Your task to perform on an android device: Open Youtube and go to "Your channel" Image 0: 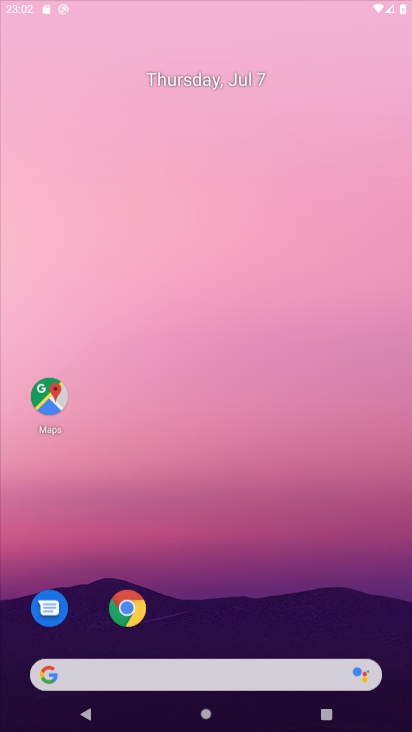
Step 0: click (206, 388)
Your task to perform on an android device: Open Youtube and go to "Your channel" Image 1: 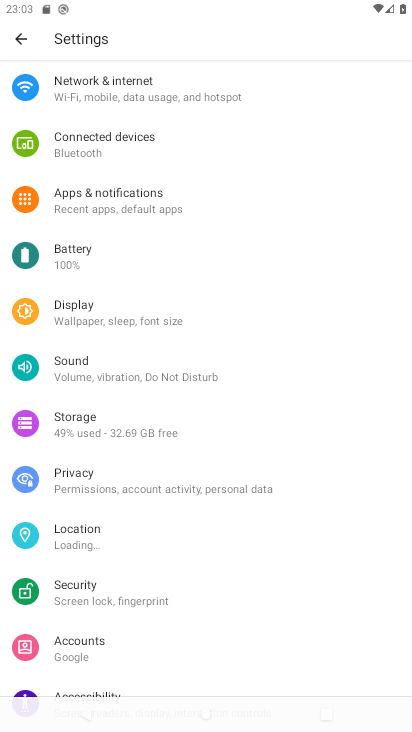
Step 1: press home button
Your task to perform on an android device: Open Youtube and go to "Your channel" Image 2: 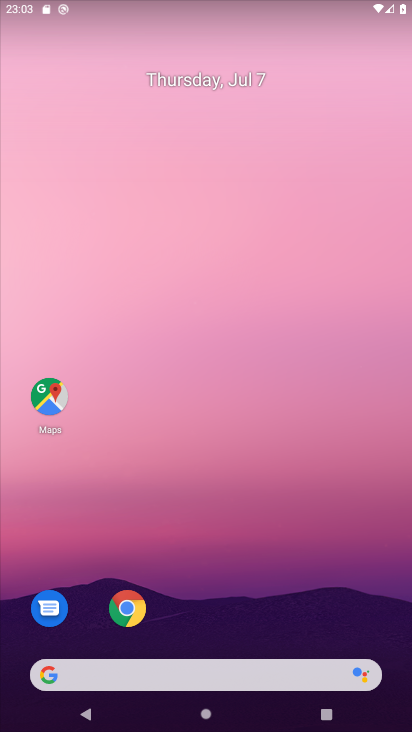
Step 2: drag from (233, 573) to (217, 436)
Your task to perform on an android device: Open Youtube and go to "Your channel" Image 3: 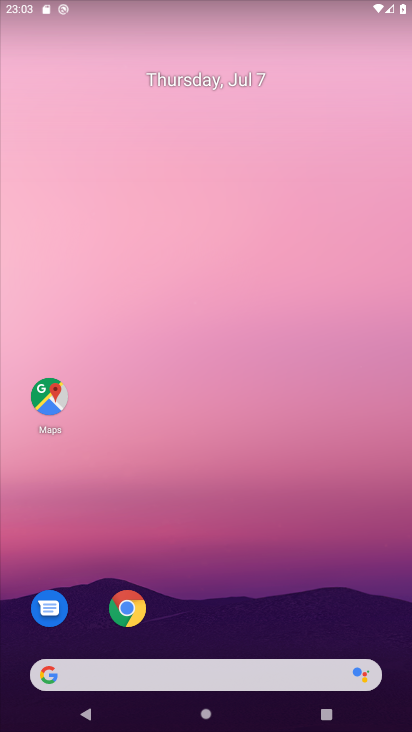
Step 3: drag from (251, 716) to (313, 90)
Your task to perform on an android device: Open Youtube and go to "Your channel" Image 4: 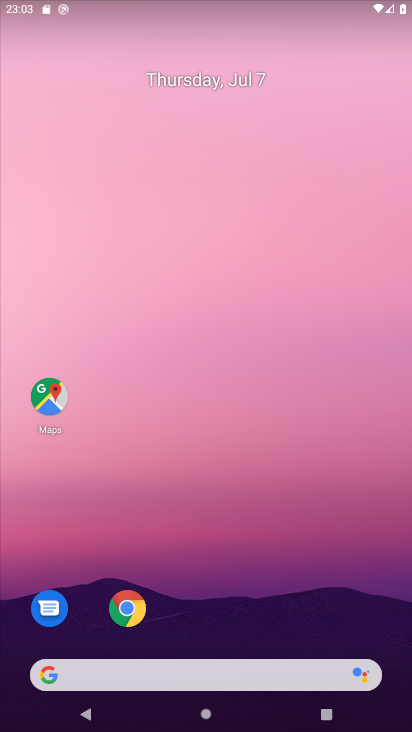
Step 4: drag from (280, 630) to (283, 483)
Your task to perform on an android device: Open Youtube and go to "Your channel" Image 5: 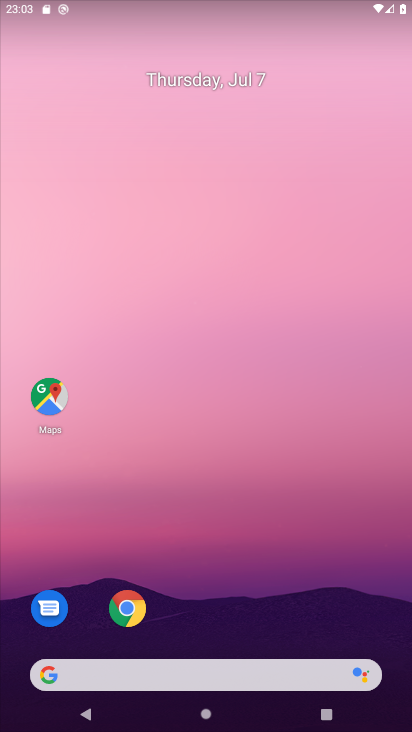
Step 5: drag from (237, 580) to (236, 70)
Your task to perform on an android device: Open Youtube and go to "Your channel" Image 6: 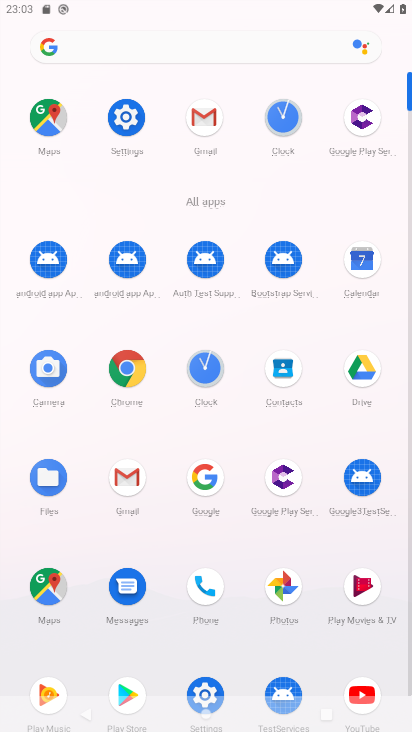
Step 6: click (369, 684)
Your task to perform on an android device: Open Youtube and go to "Your channel" Image 7: 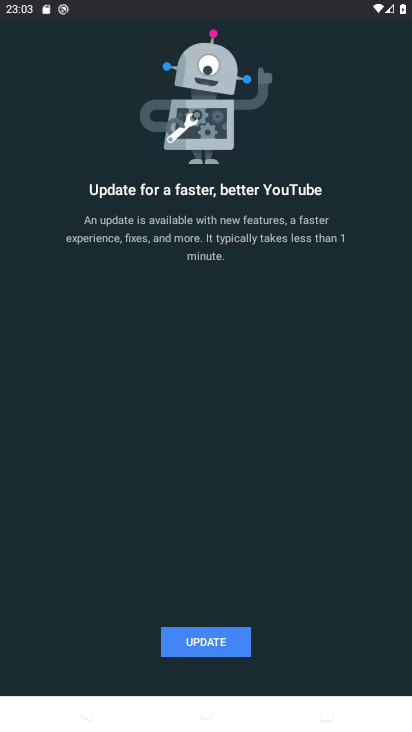
Step 7: task complete